Your task to perform on an android device: change the upload size in google photos Image 0: 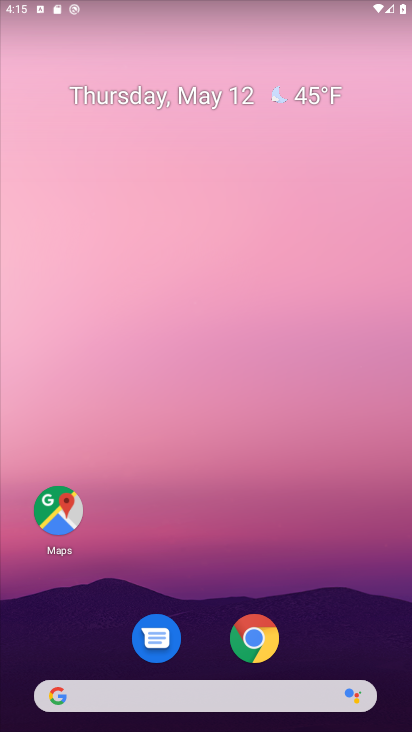
Step 0: drag from (323, 604) to (275, 144)
Your task to perform on an android device: change the upload size in google photos Image 1: 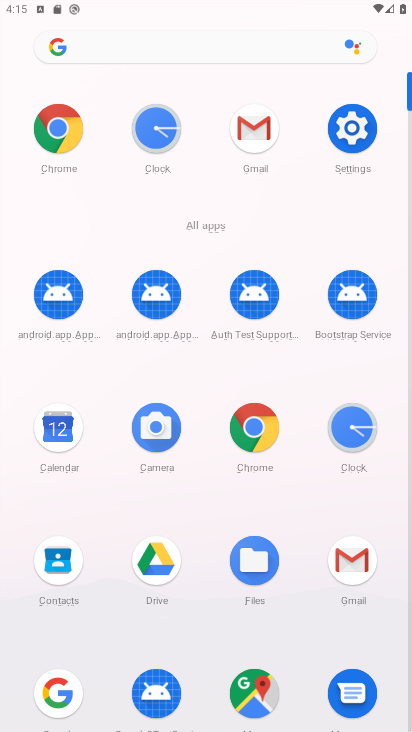
Step 1: drag from (199, 622) to (198, 246)
Your task to perform on an android device: change the upload size in google photos Image 2: 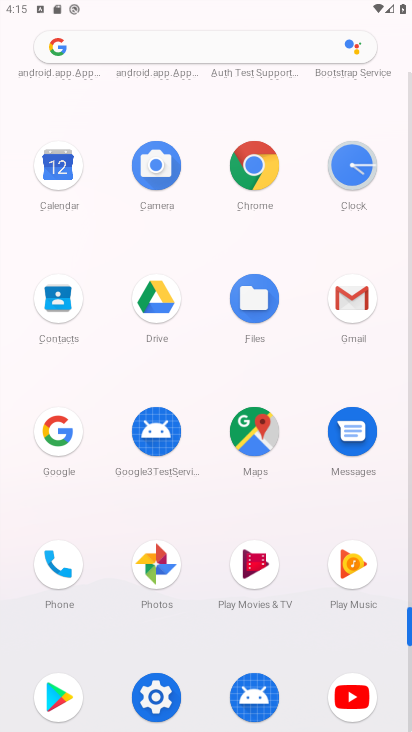
Step 2: click (170, 572)
Your task to perform on an android device: change the upload size in google photos Image 3: 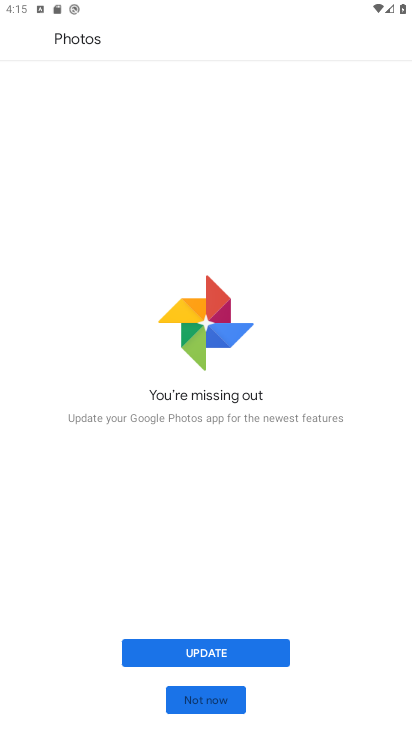
Step 3: click (236, 655)
Your task to perform on an android device: change the upload size in google photos Image 4: 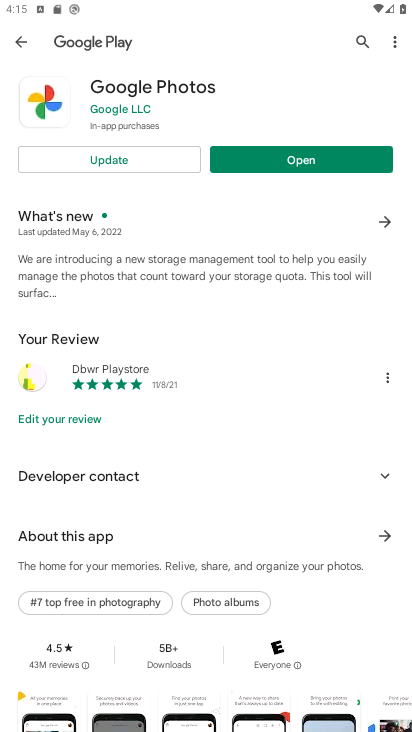
Step 4: click (102, 156)
Your task to perform on an android device: change the upload size in google photos Image 5: 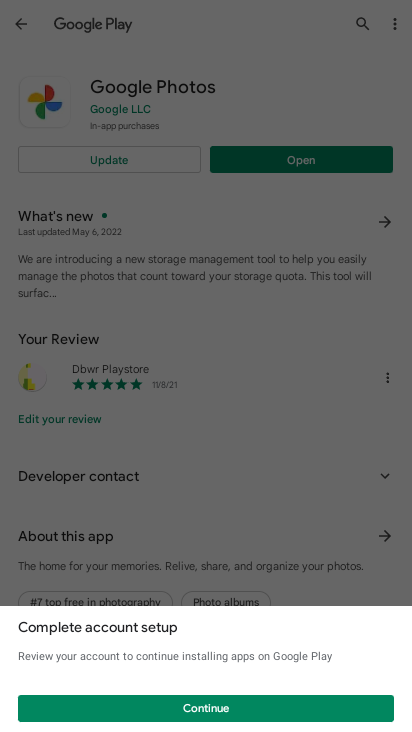
Step 5: click (122, 165)
Your task to perform on an android device: change the upload size in google photos Image 6: 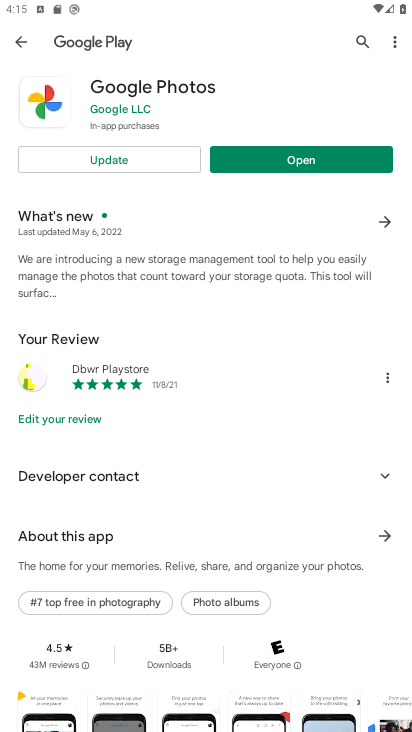
Step 6: click (131, 161)
Your task to perform on an android device: change the upload size in google photos Image 7: 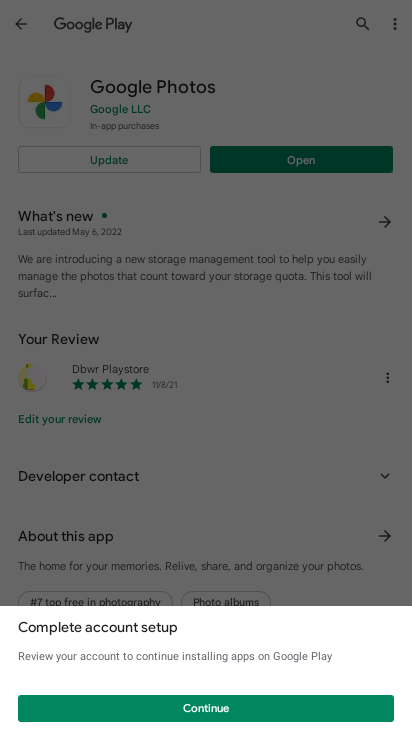
Step 7: task complete